Your task to perform on an android device: Go to settings Image 0: 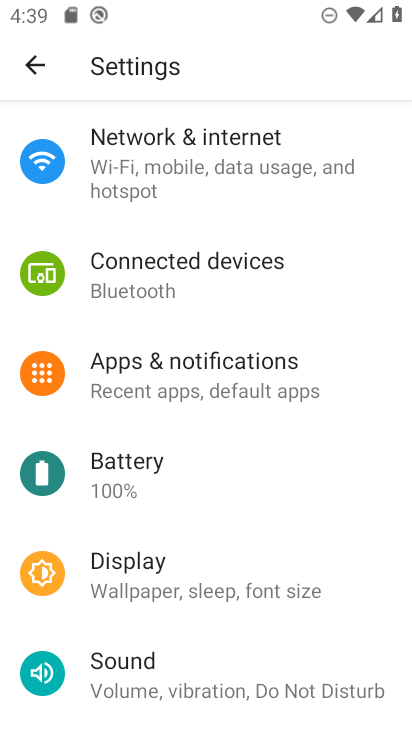
Step 0: task complete